Your task to perform on an android device: open sync settings in chrome Image 0: 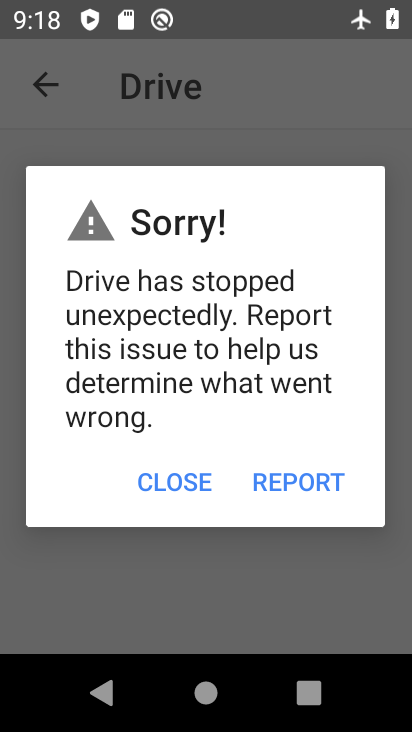
Step 0: click (168, 486)
Your task to perform on an android device: open sync settings in chrome Image 1: 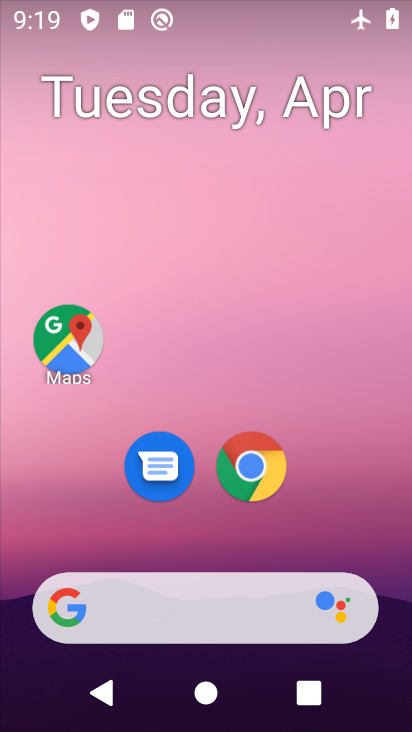
Step 1: drag from (344, 502) to (296, 212)
Your task to perform on an android device: open sync settings in chrome Image 2: 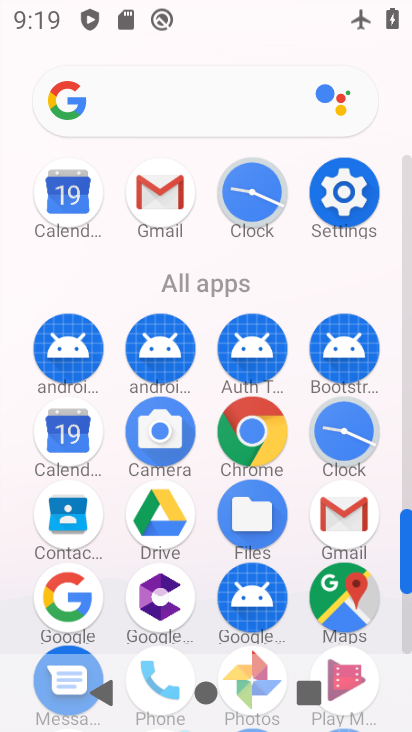
Step 2: click (265, 438)
Your task to perform on an android device: open sync settings in chrome Image 3: 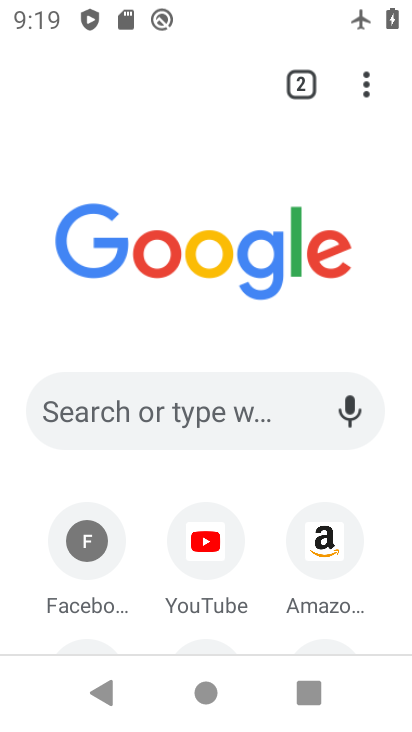
Step 3: click (377, 88)
Your task to perform on an android device: open sync settings in chrome Image 4: 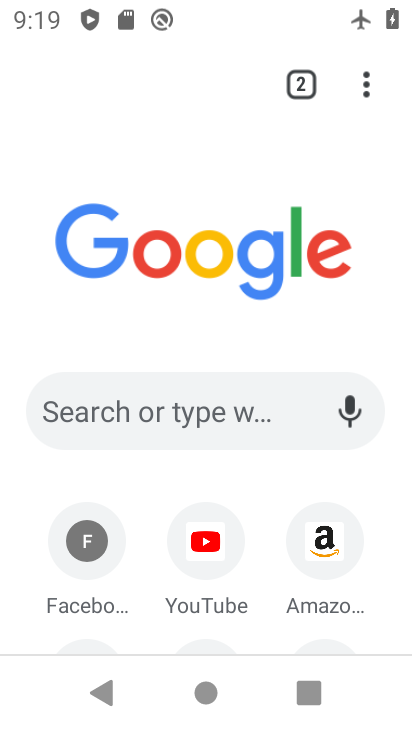
Step 4: click (377, 88)
Your task to perform on an android device: open sync settings in chrome Image 5: 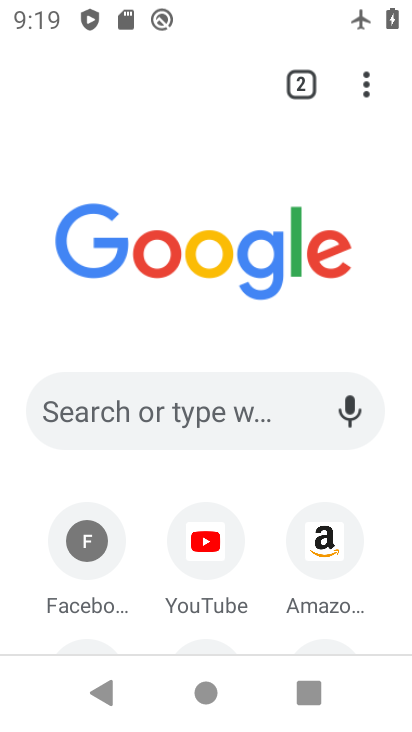
Step 5: click (359, 90)
Your task to perform on an android device: open sync settings in chrome Image 6: 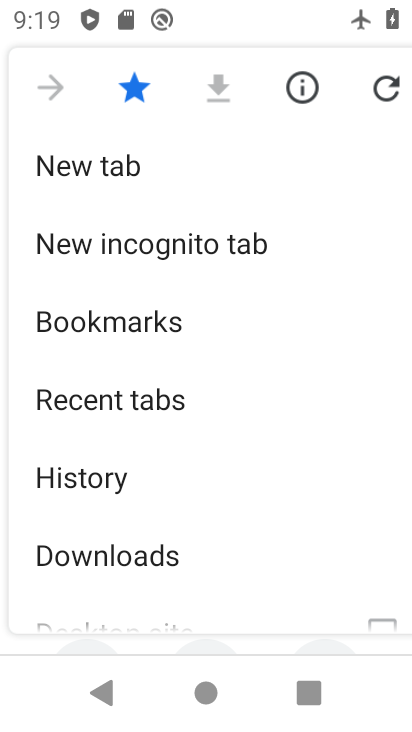
Step 6: drag from (189, 475) to (181, 371)
Your task to perform on an android device: open sync settings in chrome Image 7: 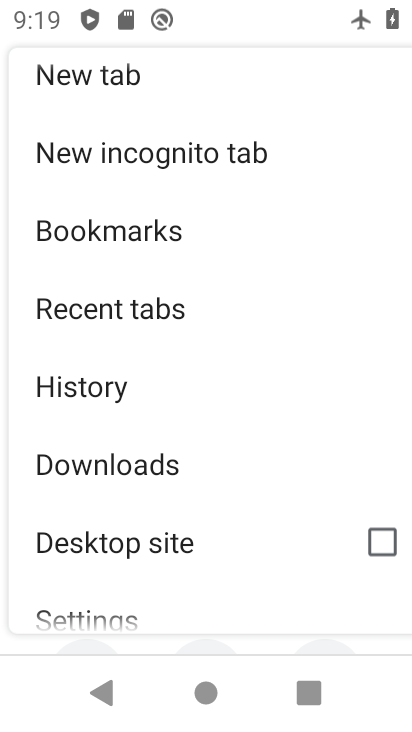
Step 7: drag from (175, 561) to (172, 402)
Your task to perform on an android device: open sync settings in chrome Image 8: 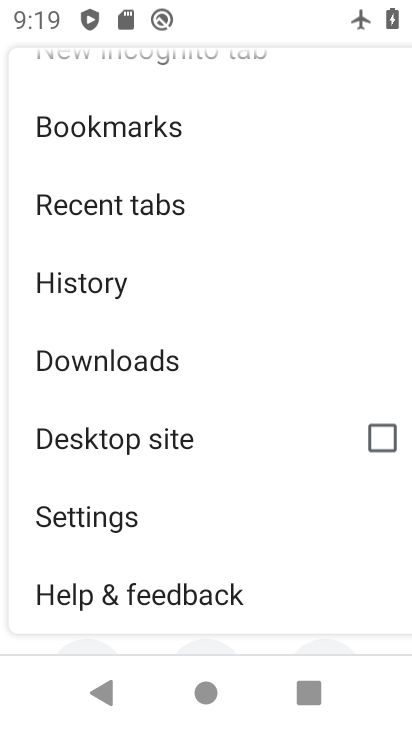
Step 8: click (185, 536)
Your task to perform on an android device: open sync settings in chrome Image 9: 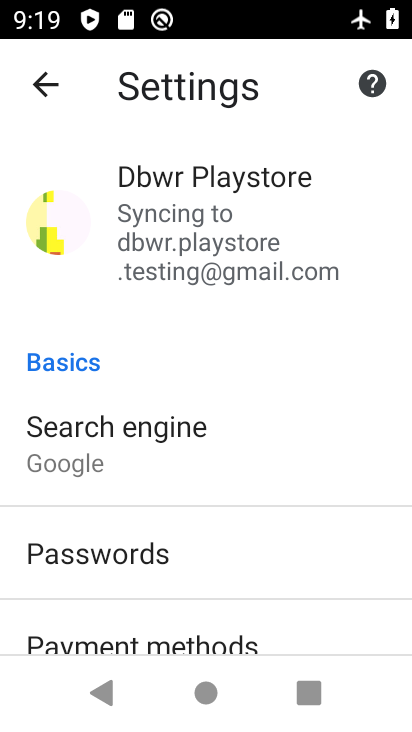
Step 9: click (195, 270)
Your task to perform on an android device: open sync settings in chrome Image 10: 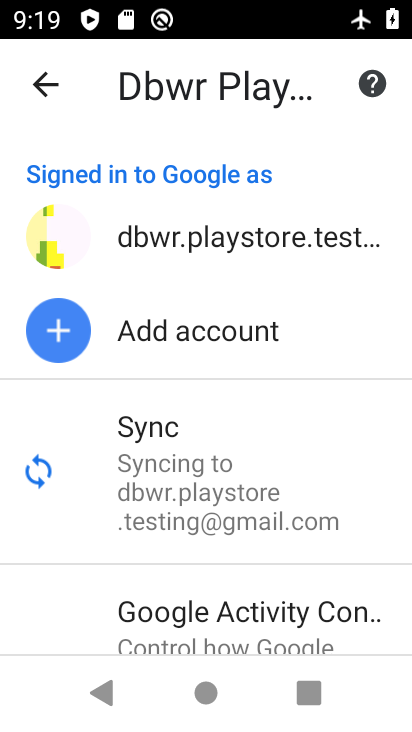
Step 10: click (250, 528)
Your task to perform on an android device: open sync settings in chrome Image 11: 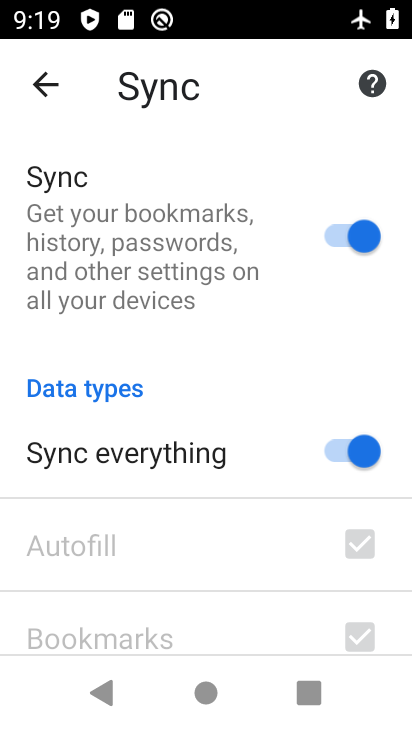
Step 11: task complete